Your task to perform on an android device: turn off location Image 0: 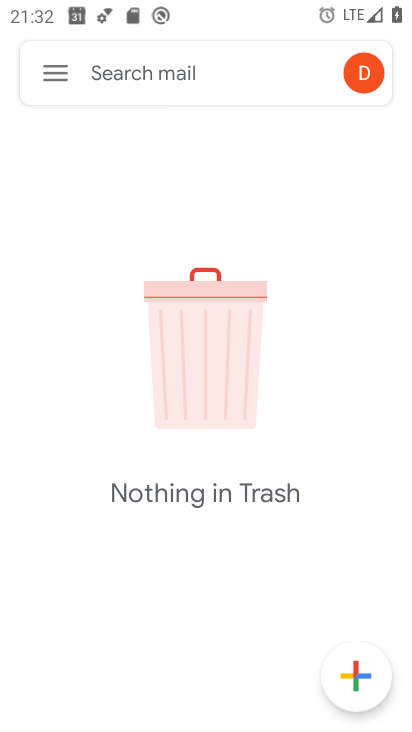
Step 0: press home button
Your task to perform on an android device: turn off location Image 1: 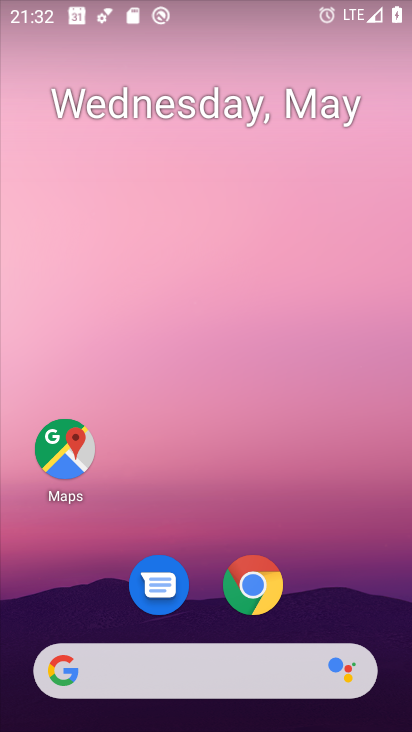
Step 1: drag from (236, 442) to (217, 60)
Your task to perform on an android device: turn off location Image 2: 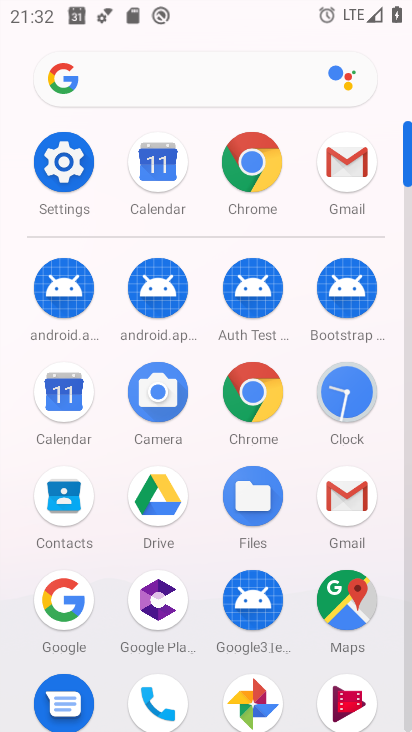
Step 2: click (78, 161)
Your task to perform on an android device: turn off location Image 3: 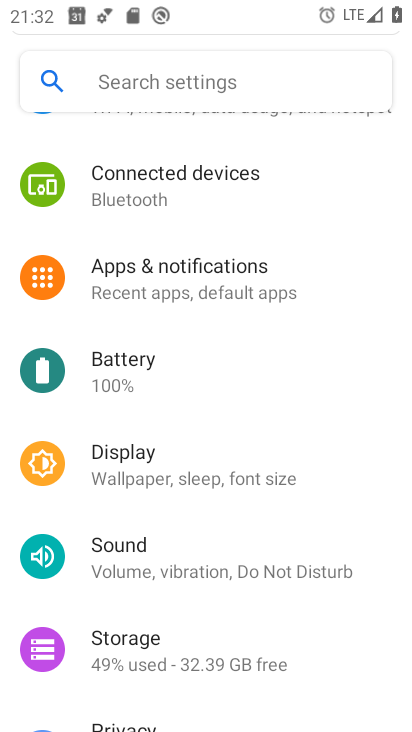
Step 3: drag from (228, 531) to (259, 159)
Your task to perform on an android device: turn off location Image 4: 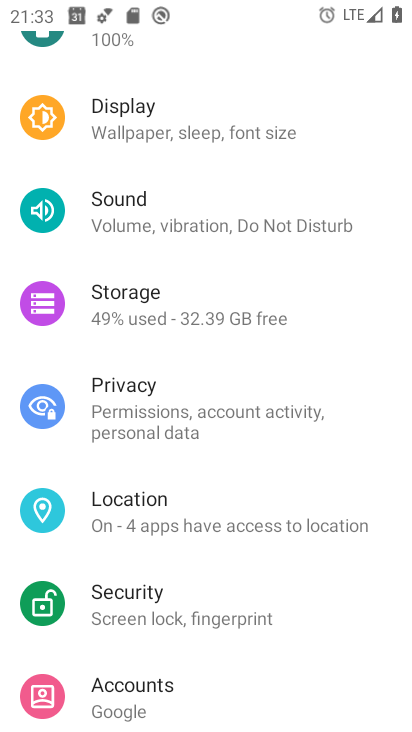
Step 4: click (216, 519)
Your task to perform on an android device: turn off location Image 5: 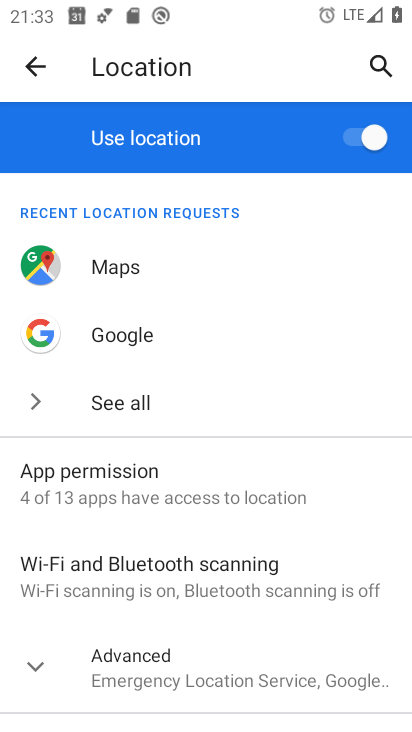
Step 5: click (363, 136)
Your task to perform on an android device: turn off location Image 6: 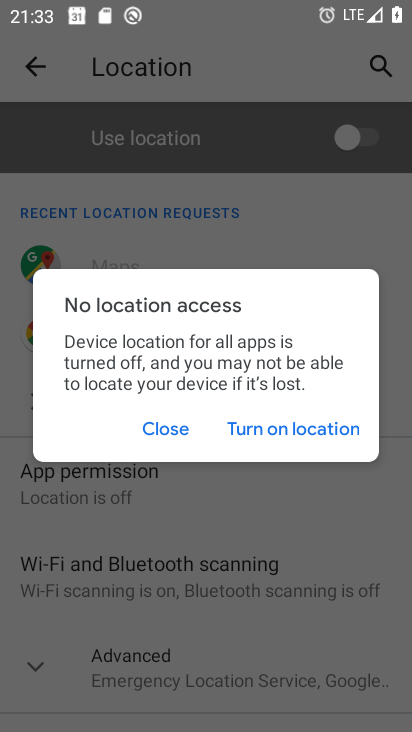
Step 6: click (175, 426)
Your task to perform on an android device: turn off location Image 7: 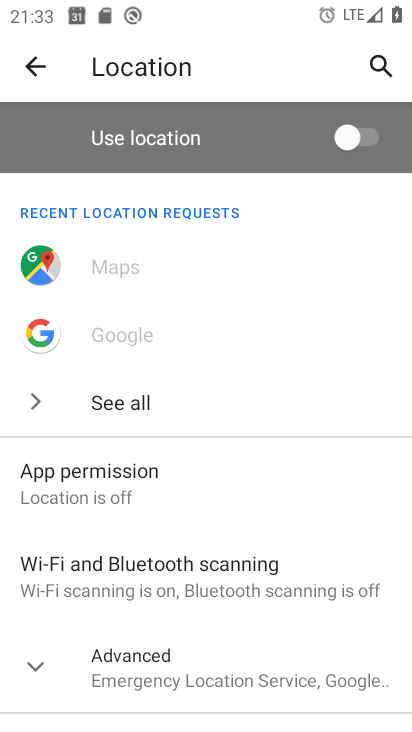
Step 7: task complete